Your task to perform on an android device: read, delete, or share a saved page in the chrome app Image 0: 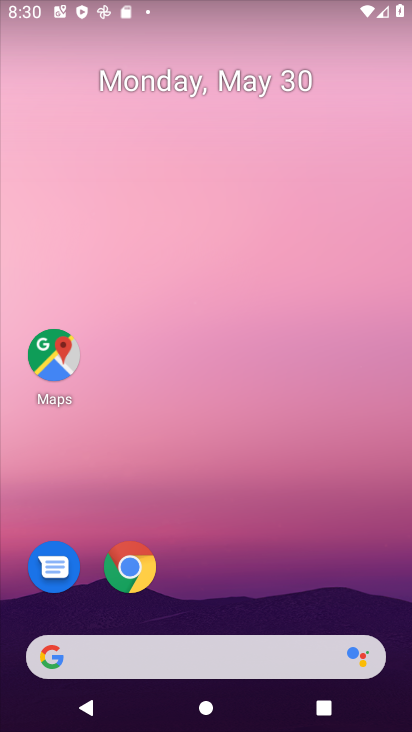
Step 0: click (145, 571)
Your task to perform on an android device: read, delete, or share a saved page in the chrome app Image 1: 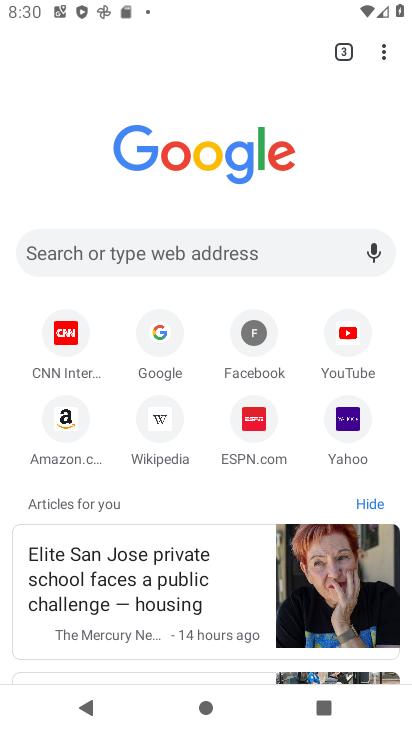
Step 1: click (391, 55)
Your task to perform on an android device: read, delete, or share a saved page in the chrome app Image 2: 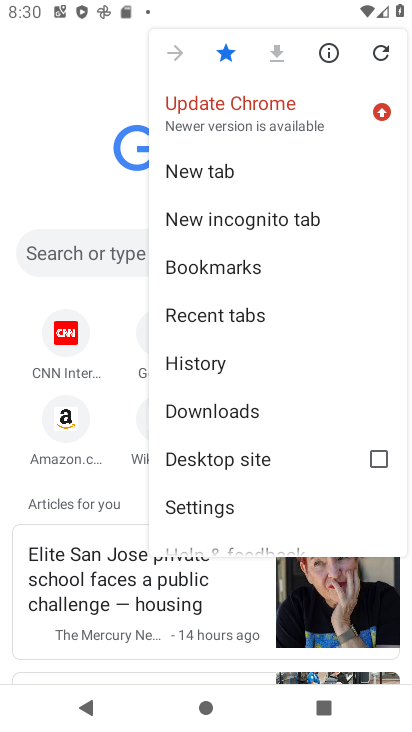
Step 2: click (233, 409)
Your task to perform on an android device: read, delete, or share a saved page in the chrome app Image 3: 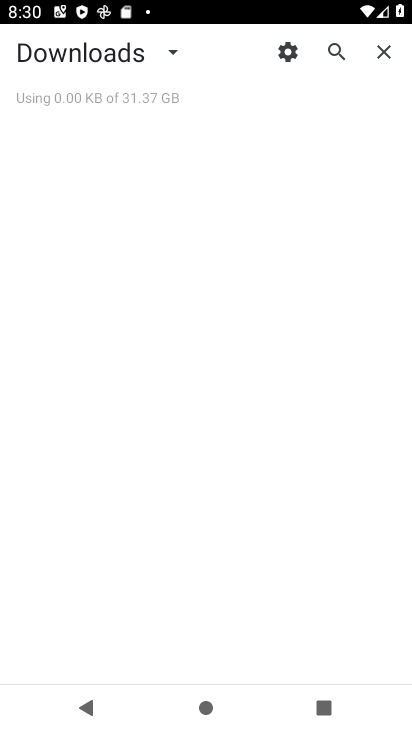
Step 3: task complete